Your task to perform on an android device: Open the calendar and show me this week's events Image 0: 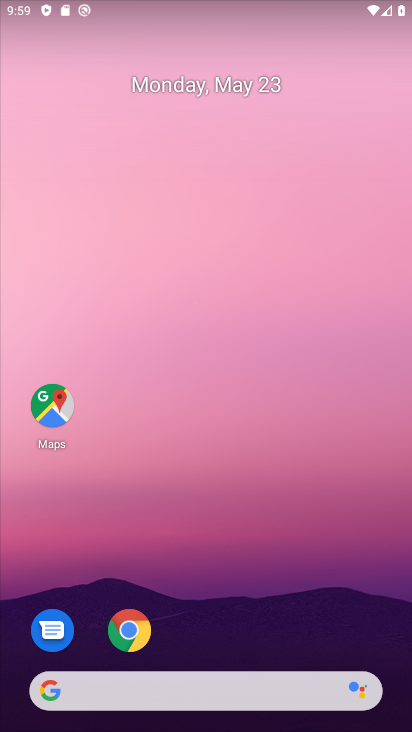
Step 0: drag from (327, 656) to (314, 21)
Your task to perform on an android device: Open the calendar and show me this week's events Image 1: 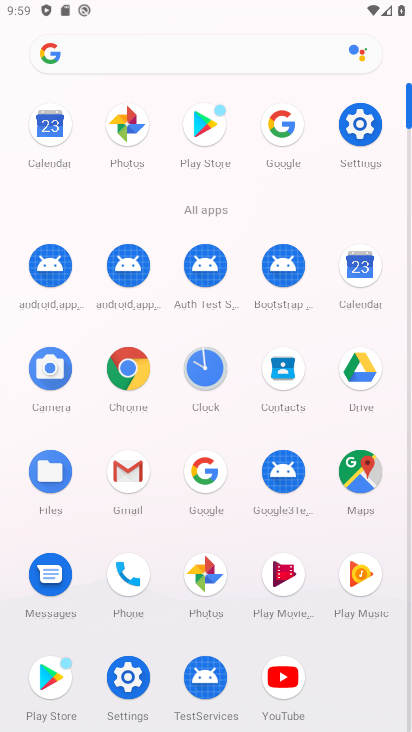
Step 1: click (42, 115)
Your task to perform on an android device: Open the calendar and show me this week's events Image 2: 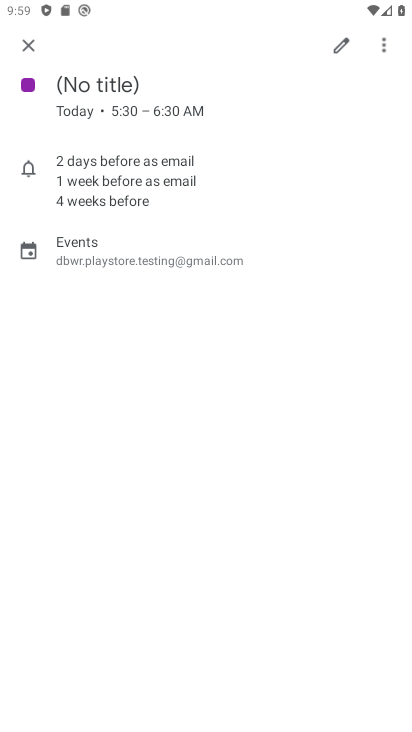
Step 2: click (29, 52)
Your task to perform on an android device: Open the calendar and show me this week's events Image 3: 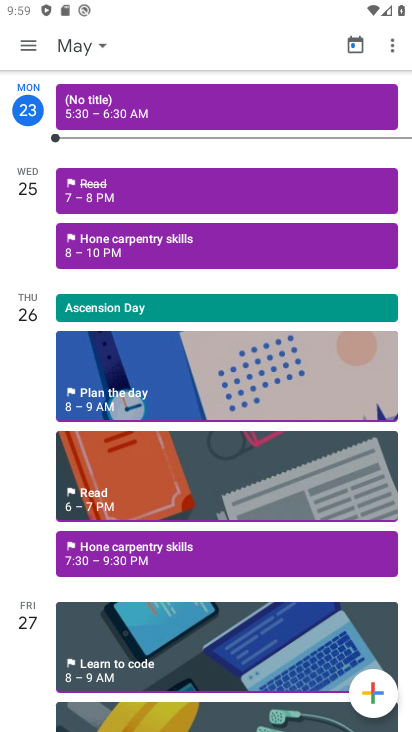
Step 3: click (97, 43)
Your task to perform on an android device: Open the calendar and show me this week's events Image 4: 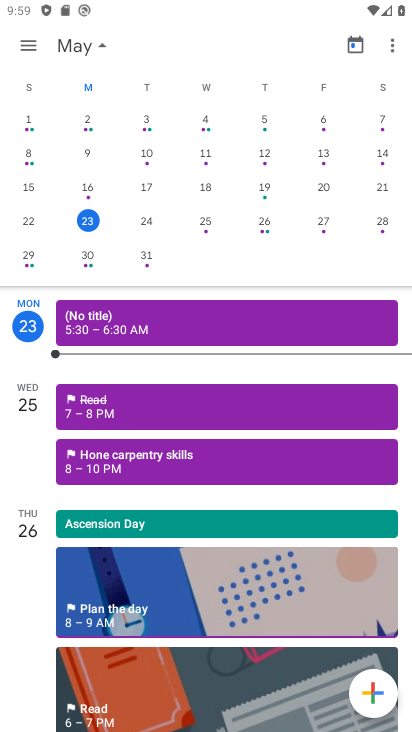
Step 4: click (27, 45)
Your task to perform on an android device: Open the calendar and show me this week's events Image 5: 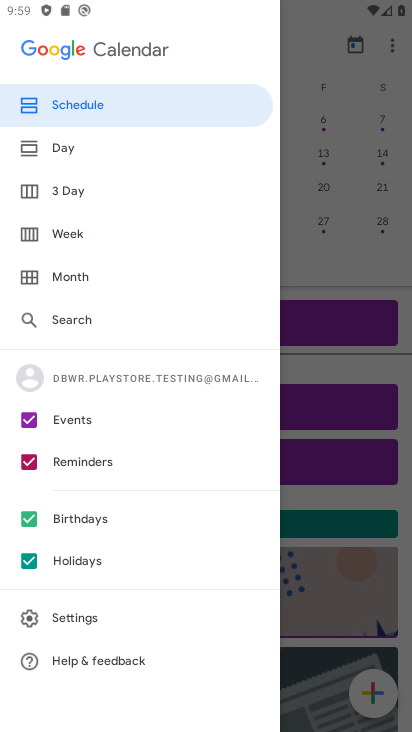
Step 5: click (72, 245)
Your task to perform on an android device: Open the calendar and show me this week's events Image 6: 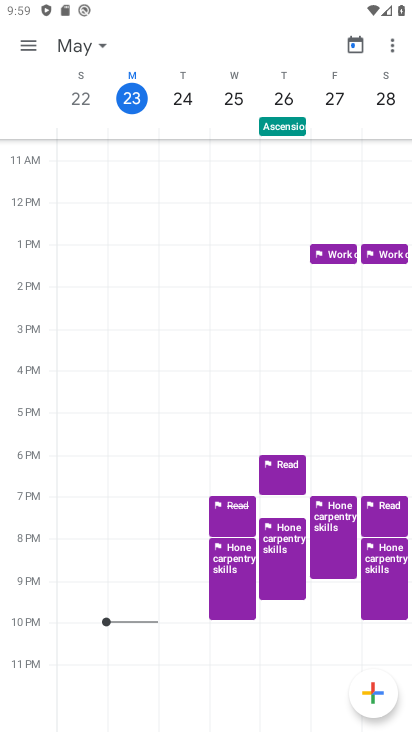
Step 6: click (29, 46)
Your task to perform on an android device: Open the calendar and show me this week's events Image 7: 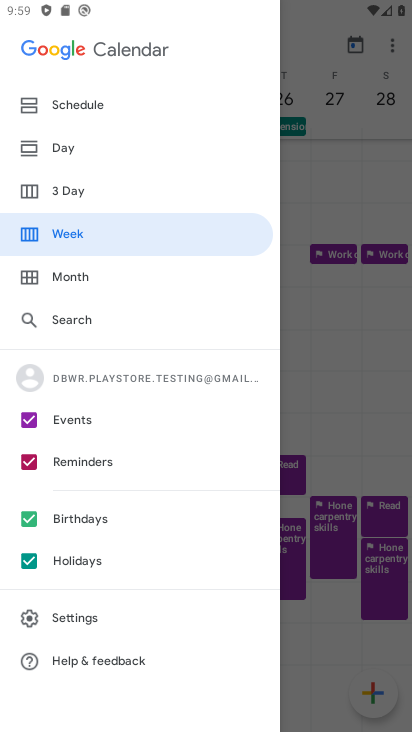
Step 7: click (27, 475)
Your task to perform on an android device: Open the calendar and show me this week's events Image 8: 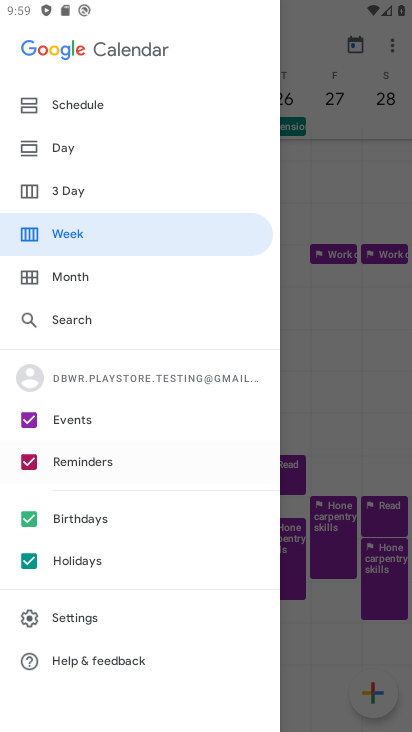
Step 8: click (27, 522)
Your task to perform on an android device: Open the calendar and show me this week's events Image 9: 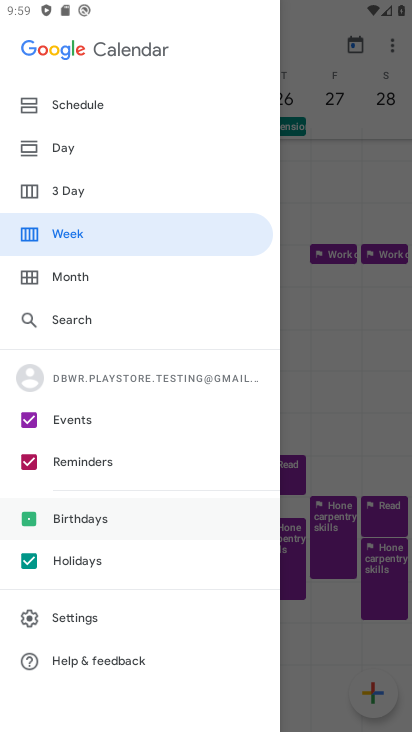
Step 9: click (37, 562)
Your task to perform on an android device: Open the calendar and show me this week's events Image 10: 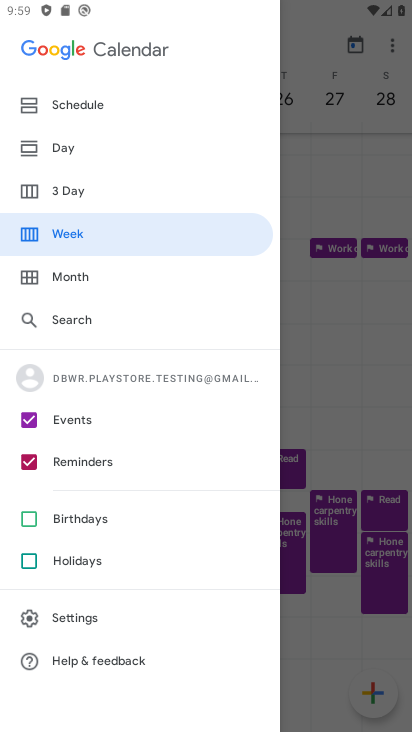
Step 10: click (41, 464)
Your task to perform on an android device: Open the calendar and show me this week's events Image 11: 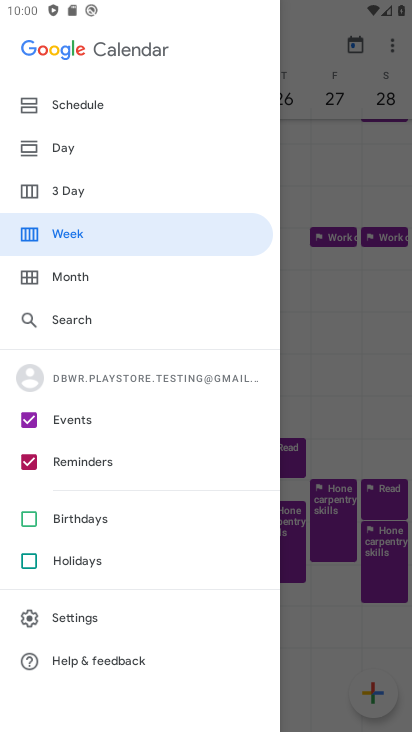
Step 11: click (35, 465)
Your task to perform on an android device: Open the calendar and show me this week's events Image 12: 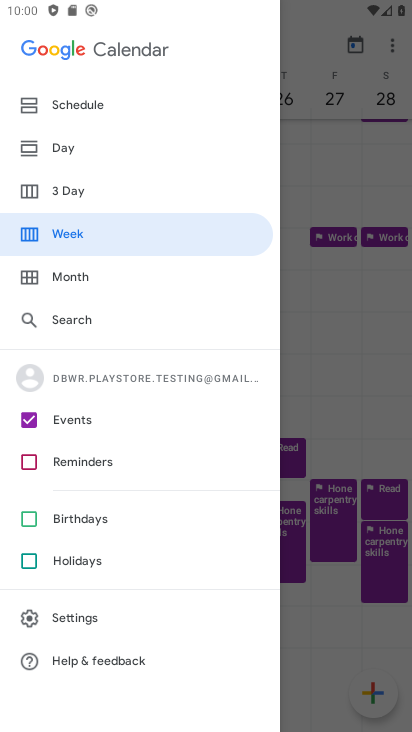
Step 12: click (24, 235)
Your task to perform on an android device: Open the calendar and show me this week's events Image 13: 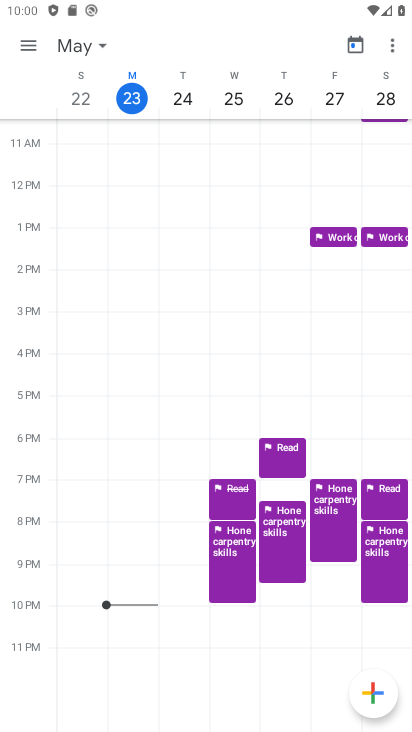
Step 13: task complete